Your task to perform on an android device: delete browsing data in the chrome app Image 0: 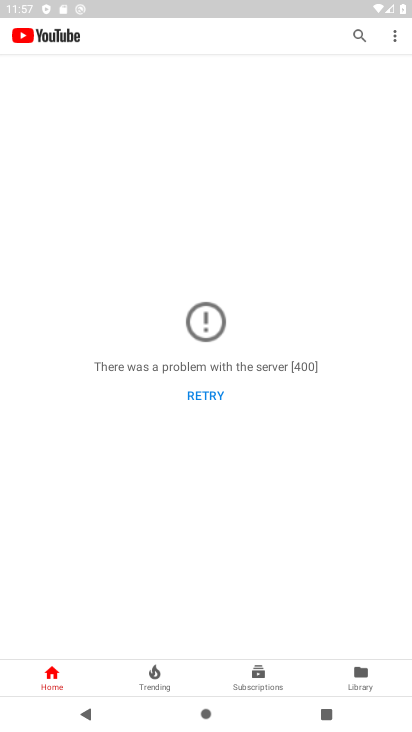
Step 0: click (192, 399)
Your task to perform on an android device: delete browsing data in the chrome app Image 1: 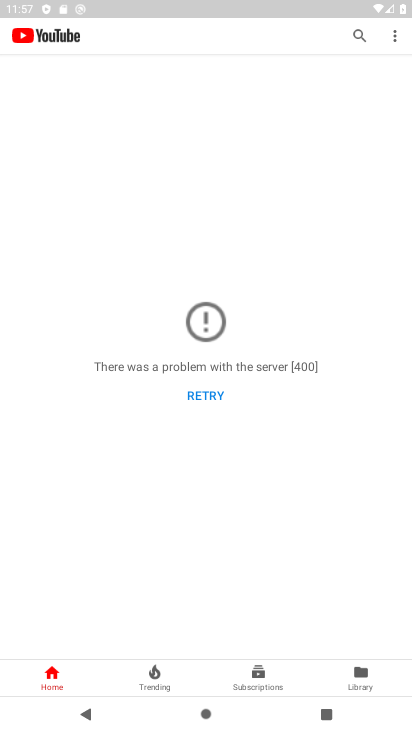
Step 1: press home button
Your task to perform on an android device: delete browsing data in the chrome app Image 2: 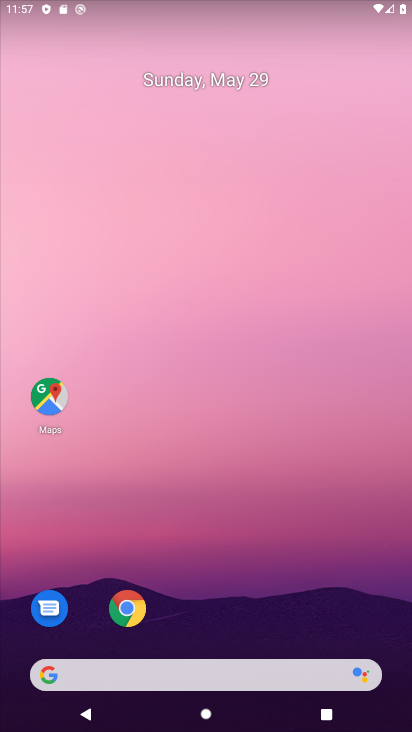
Step 2: click (121, 617)
Your task to perform on an android device: delete browsing data in the chrome app Image 3: 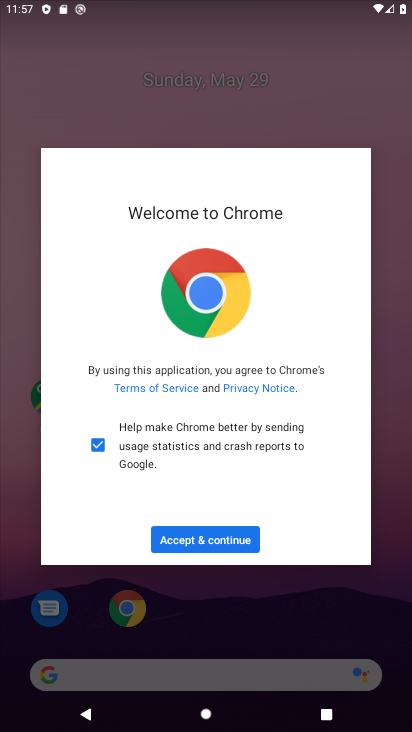
Step 3: click (214, 549)
Your task to perform on an android device: delete browsing data in the chrome app Image 4: 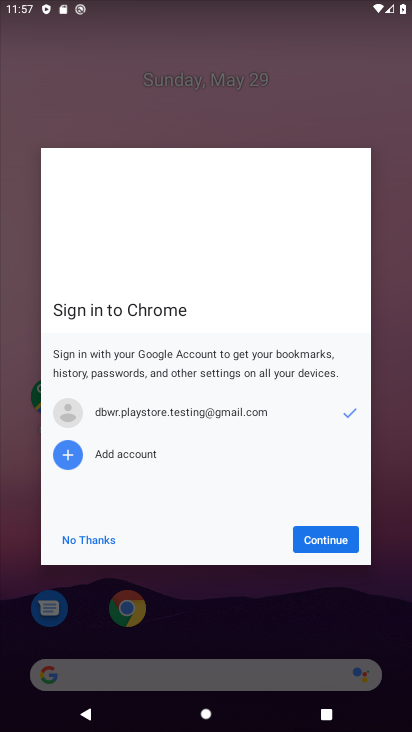
Step 4: click (344, 540)
Your task to perform on an android device: delete browsing data in the chrome app Image 5: 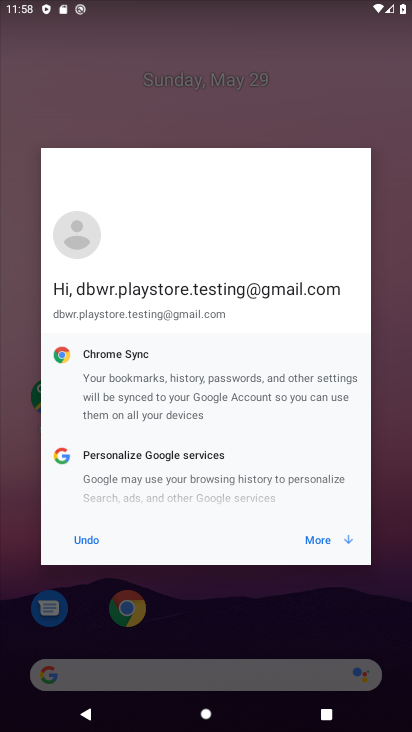
Step 5: click (318, 544)
Your task to perform on an android device: delete browsing data in the chrome app Image 6: 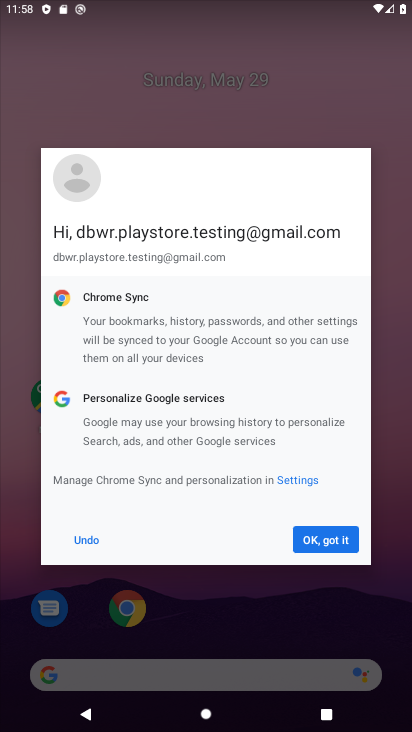
Step 6: click (336, 544)
Your task to perform on an android device: delete browsing data in the chrome app Image 7: 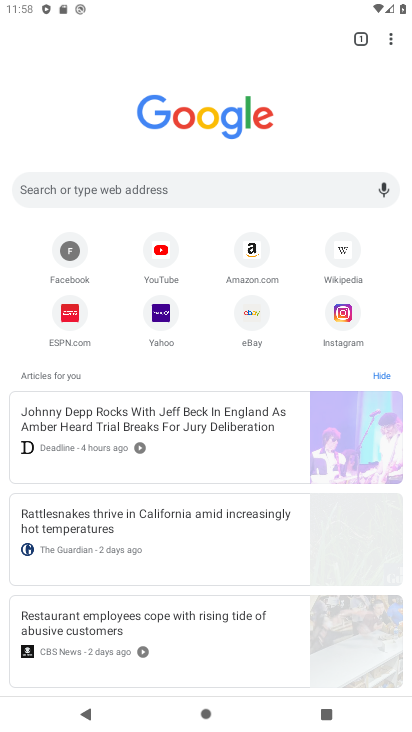
Step 7: click (389, 40)
Your task to perform on an android device: delete browsing data in the chrome app Image 8: 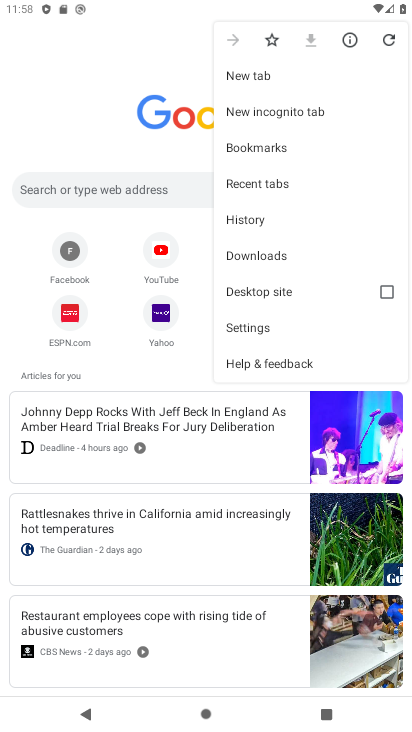
Step 8: click (261, 330)
Your task to perform on an android device: delete browsing data in the chrome app Image 9: 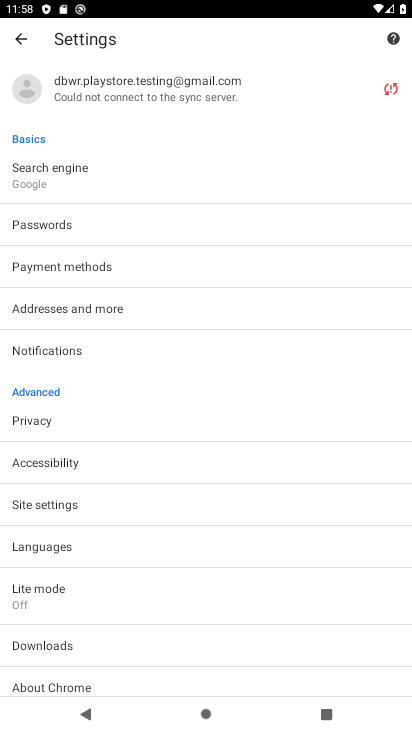
Step 9: click (21, 46)
Your task to perform on an android device: delete browsing data in the chrome app Image 10: 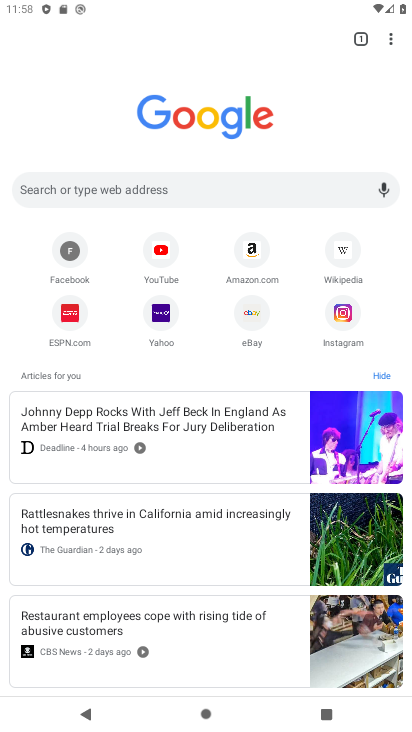
Step 10: click (389, 38)
Your task to perform on an android device: delete browsing data in the chrome app Image 11: 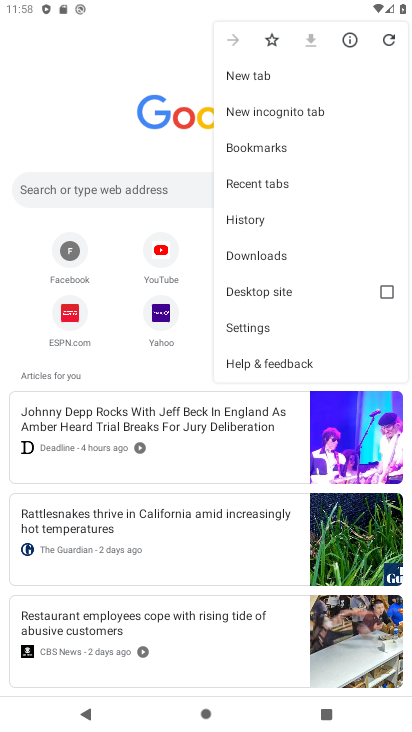
Step 11: click (265, 223)
Your task to perform on an android device: delete browsing data in the chrome app Image 12: 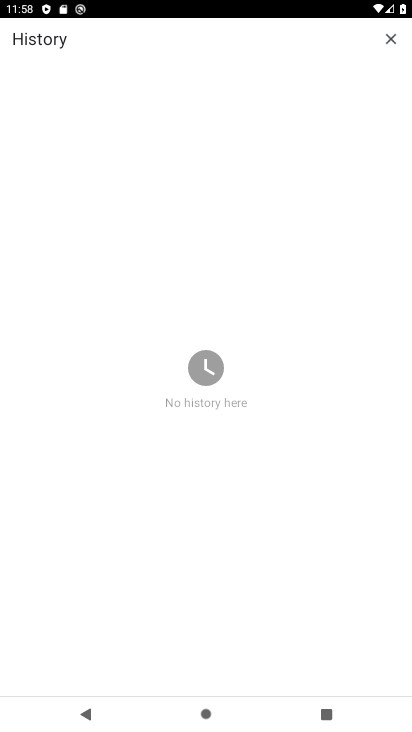
Step 12: task complete